Your task to perform on an android device: see tabs open on other devices in the chrome app Image 0: 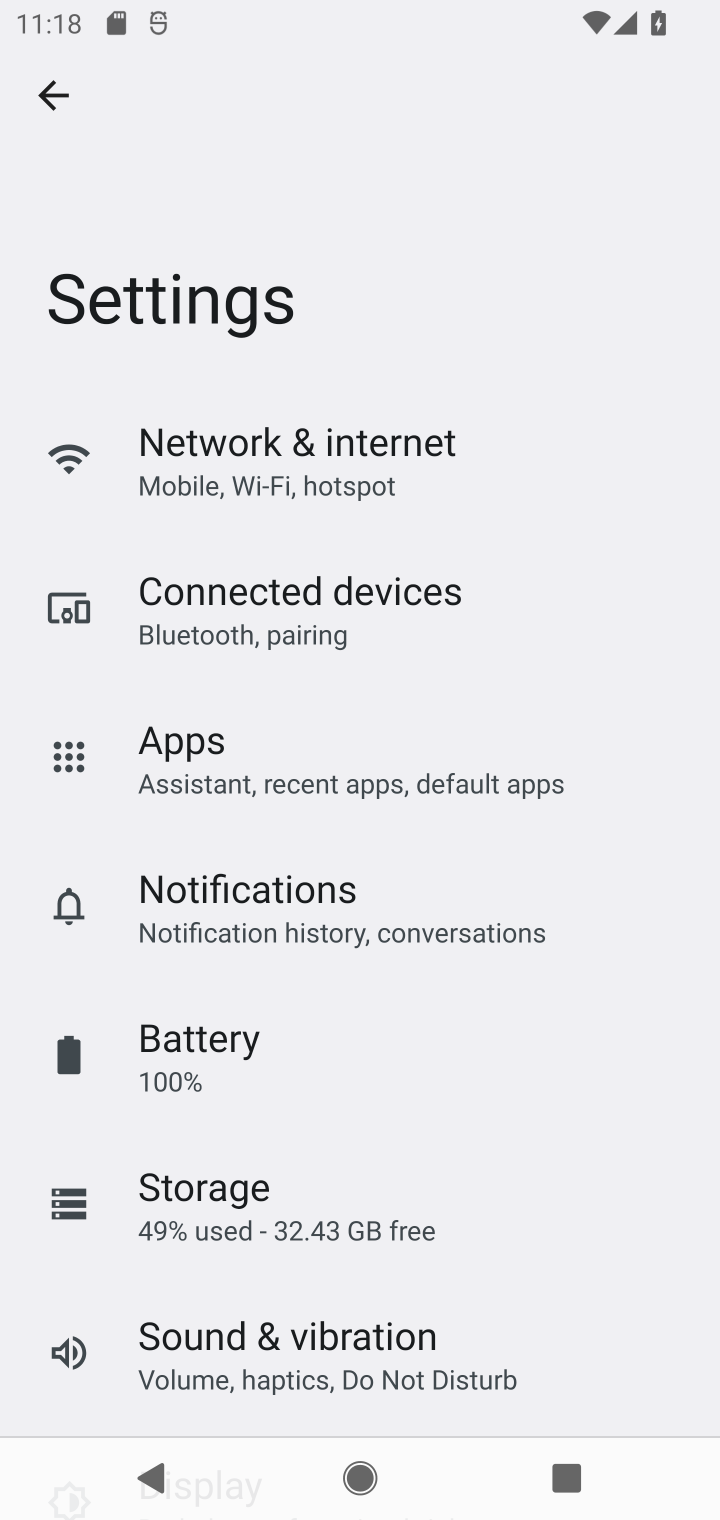
Step 0: press home button
Your task to perform on an android device: see tabs open on other devices in the chrome app Image 1: 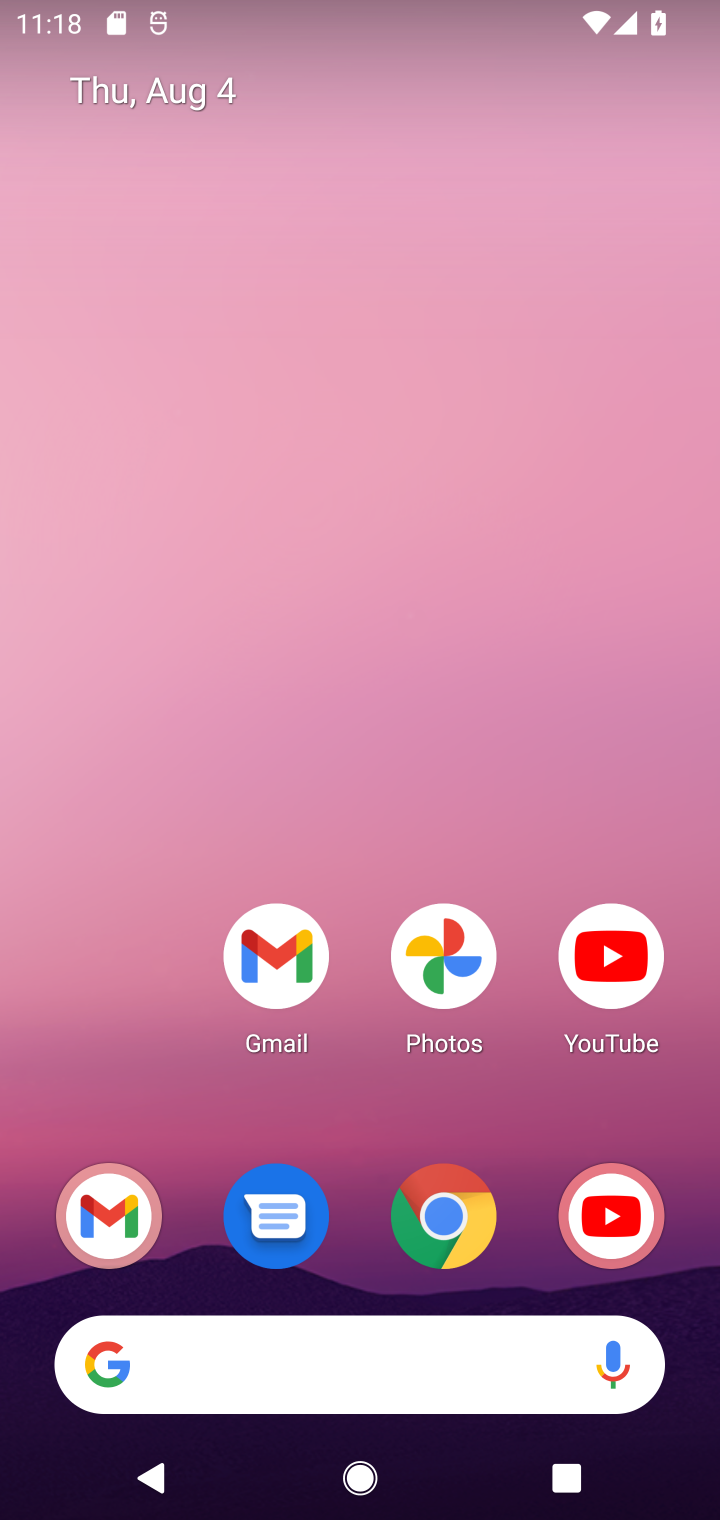
Step 1: click (454, 1217)
Your task to perform on an android device: see tabs open on other devices in the chrome app Image 2: 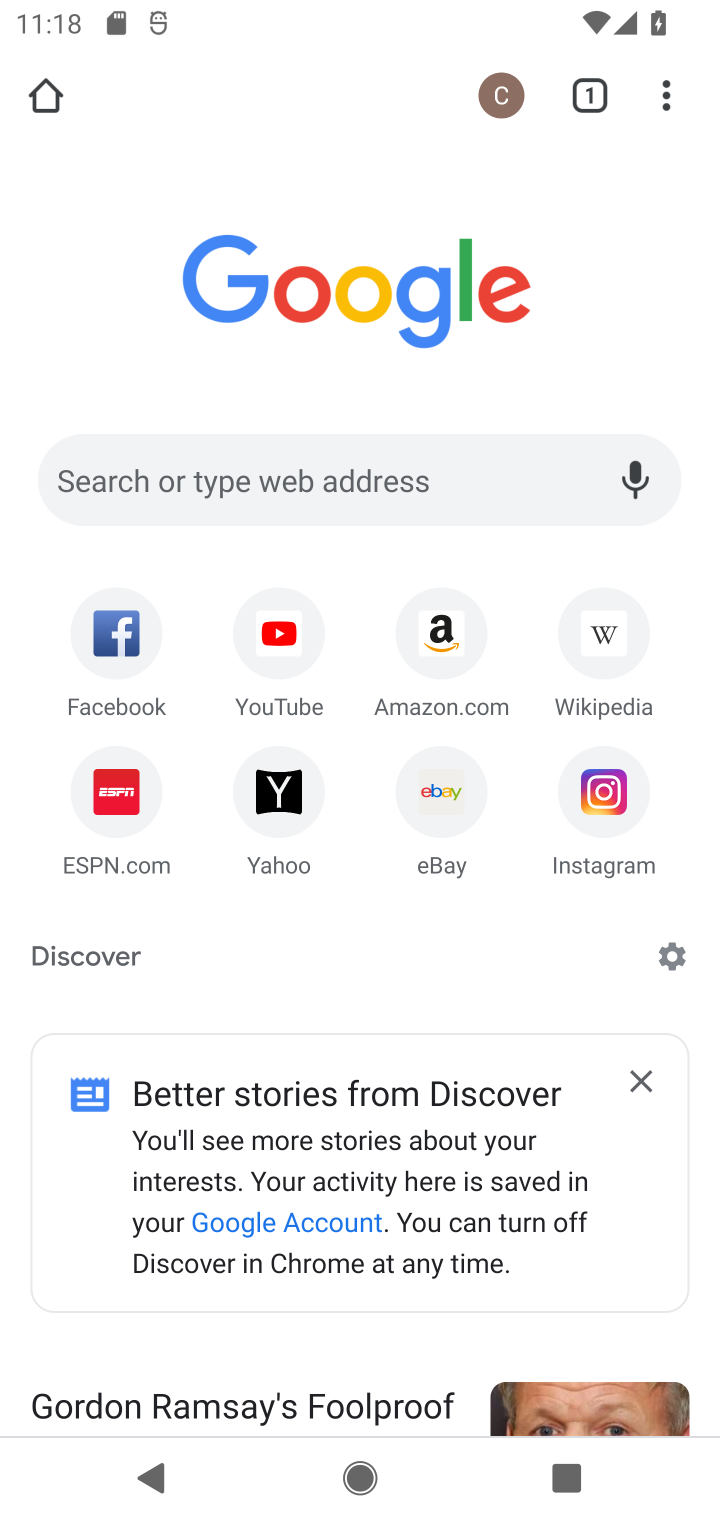
Step 2: click (673, 94)
Your task to perform on an android device: see tabs open on other devices in the chrome app Image 3: 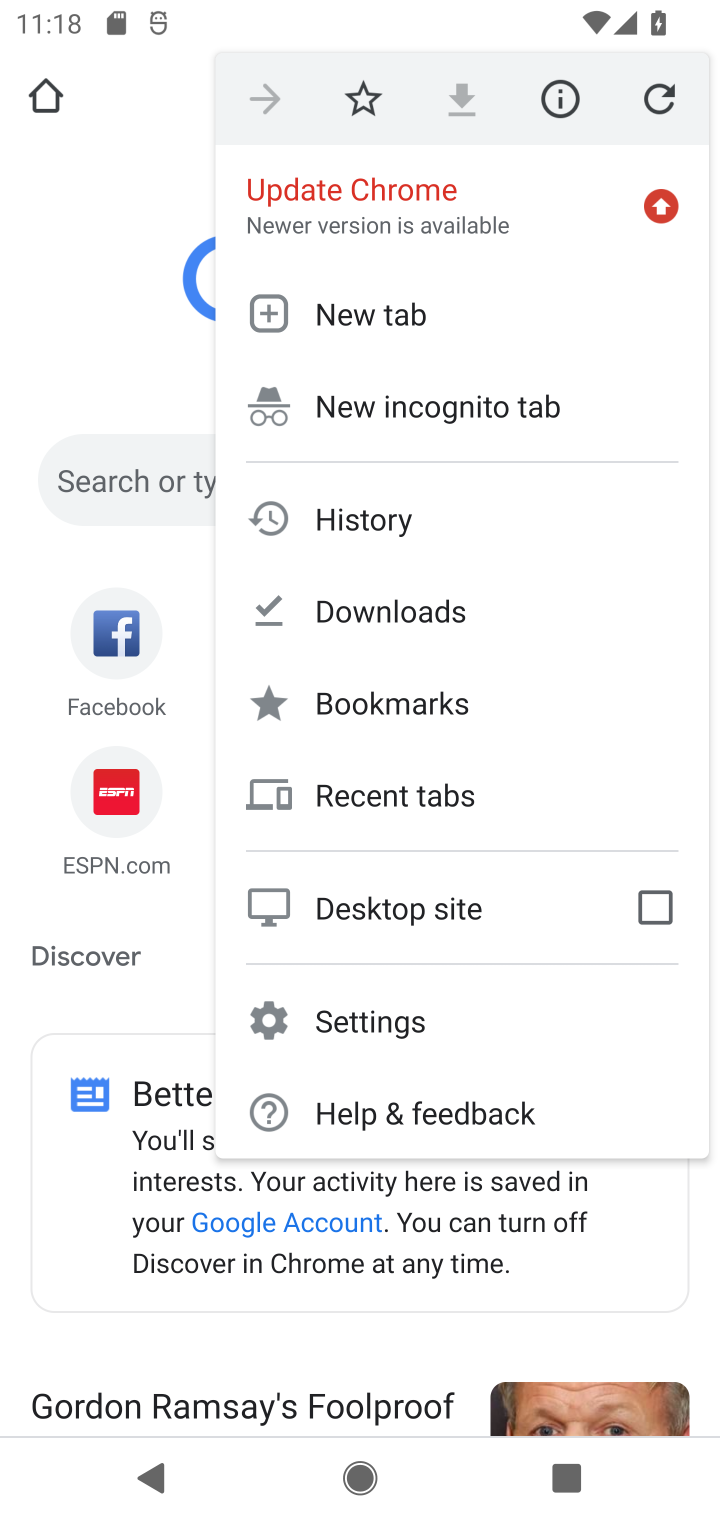
Step 3: click (404, 790)
Your task to perform on an android device: see tabs open on other devices in the chrome app Image 4: 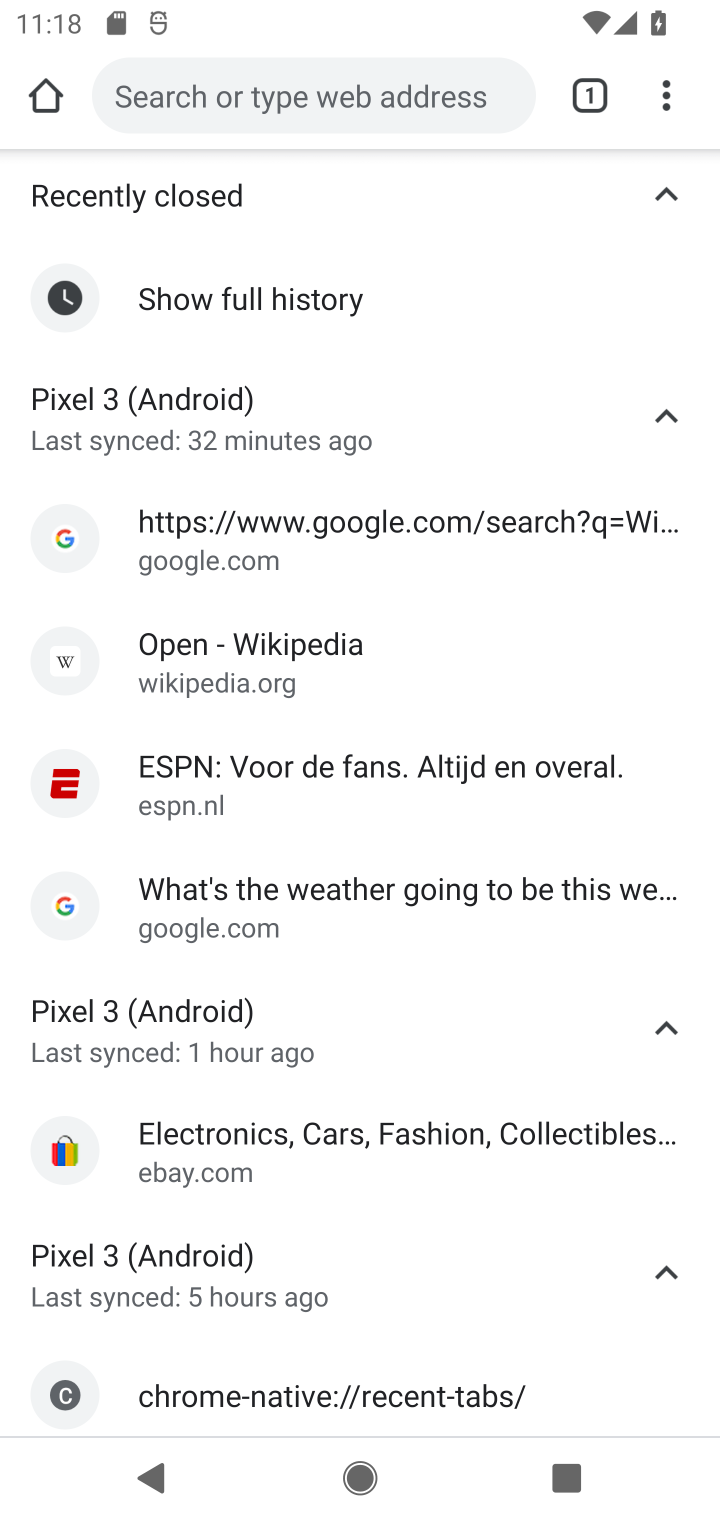
Step 4: task complete